Your task to perform on an android device: toggle location history Image 0: 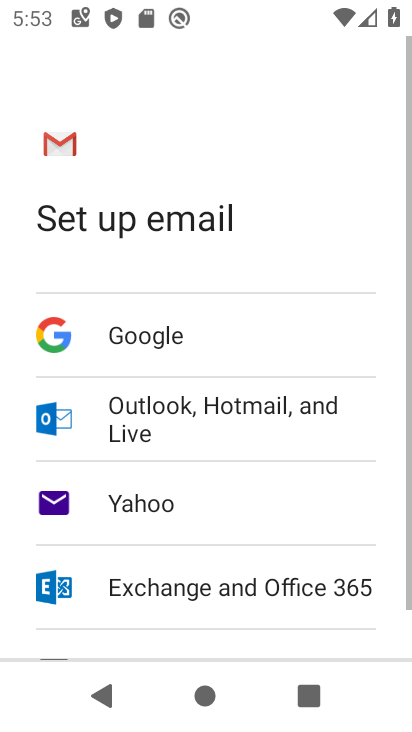
Step 0: press home button
Your task to perform on an android device: toggle location history Image 1: 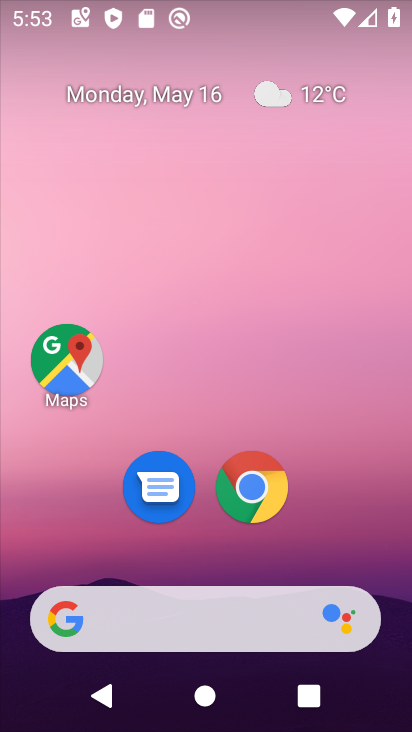
Step 1: drag from (409, 435) to (368, 22)
Your task to perform on an android device: toggle location history Image 2: 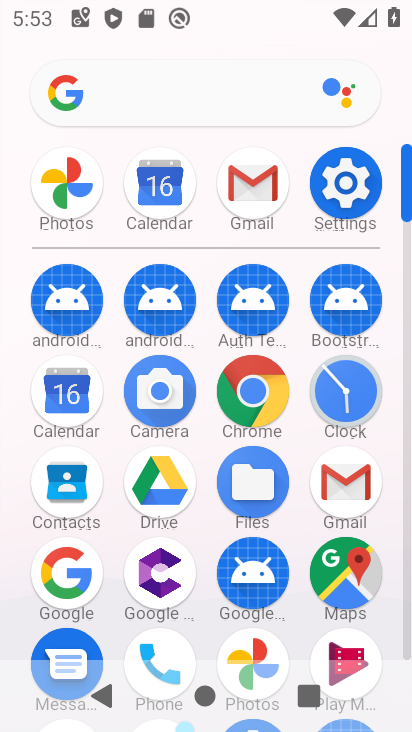
Step 2: click (331, 177)
Your task to perform on an android device: toggle location history Image 3: 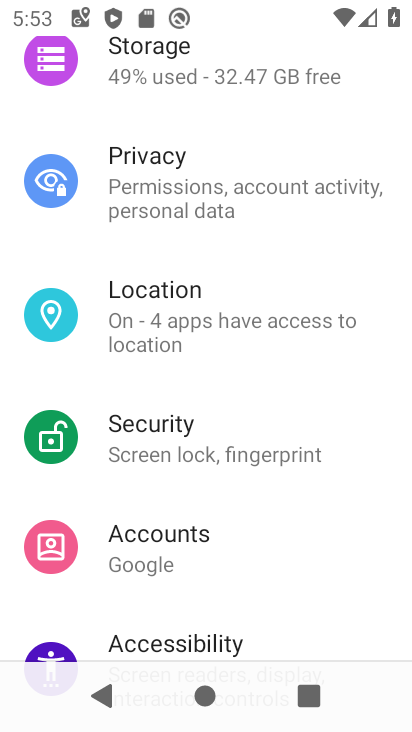
Step 3: click (154, 318)
Your task to perform on an android device: toggle location history Image 4: 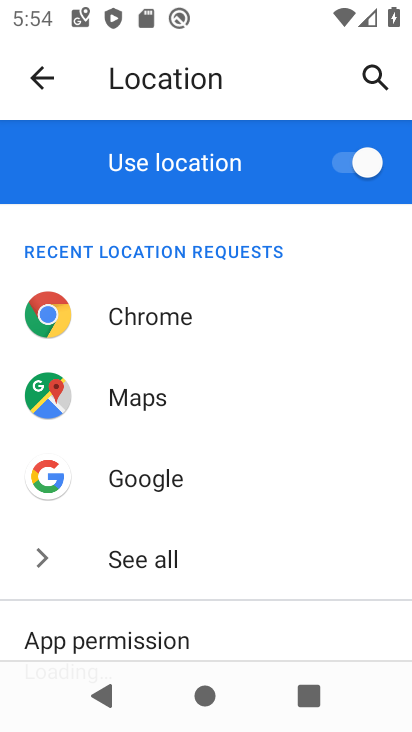
Step 4: drag from (301, 513) to (268, 90)
Your task to perform on an android device: toggle location history Image 5: 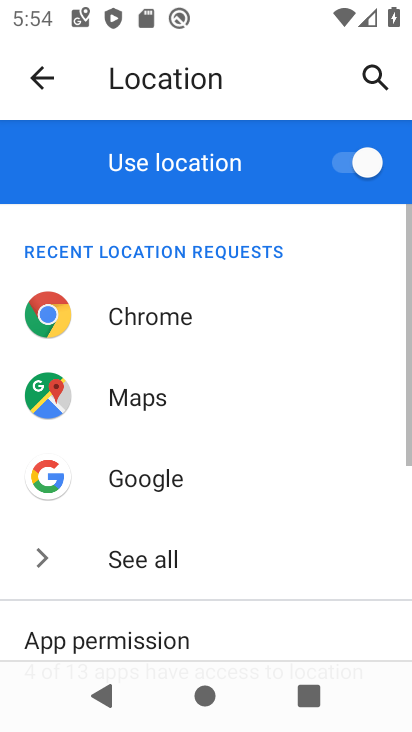
Step 5: drag from (188, 603) to (239, 151)
Your task to perform on an android device: toggle location history Image 6: 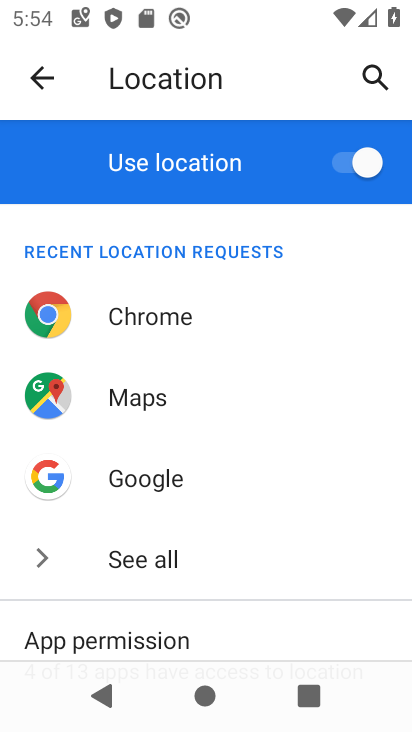
Step 6: drag from (250, 638) to (286, 205)
Your task to perform on an android device: toggle location history Image 7: 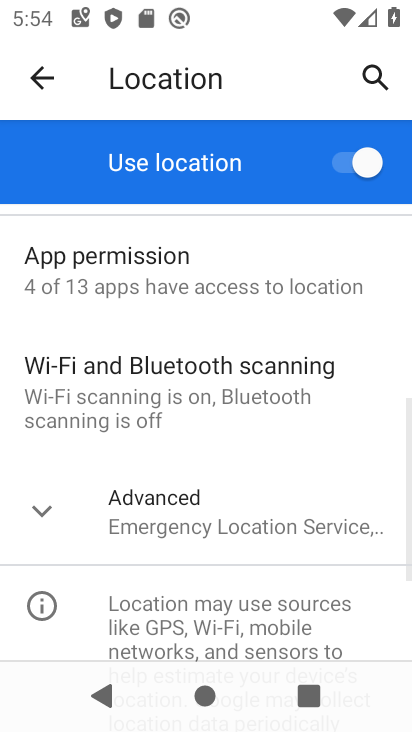
Step 7: click (185, 519)
Your task to perform on an android device: toggle location history Image 8: 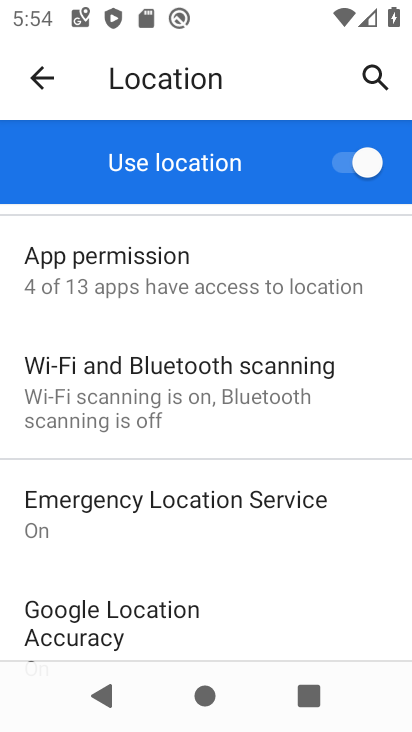
Step 8: drag from (190, 641) to (294, 342)
Your task to perform on an android device: toggle location history Image 9: 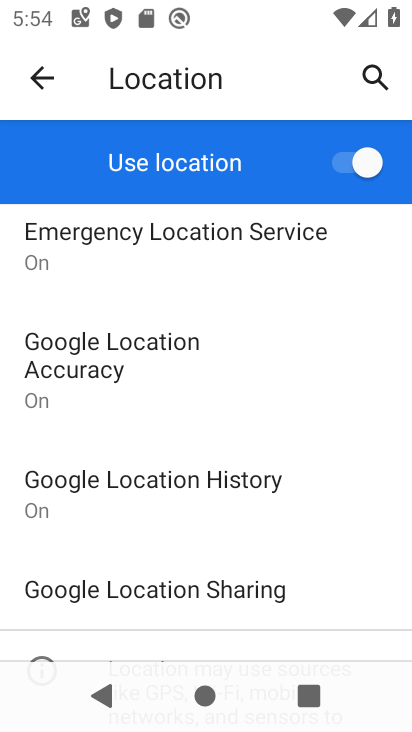
Step 9: click (214, 491)
Your task to perform on an android device: toggle location history Image 10: 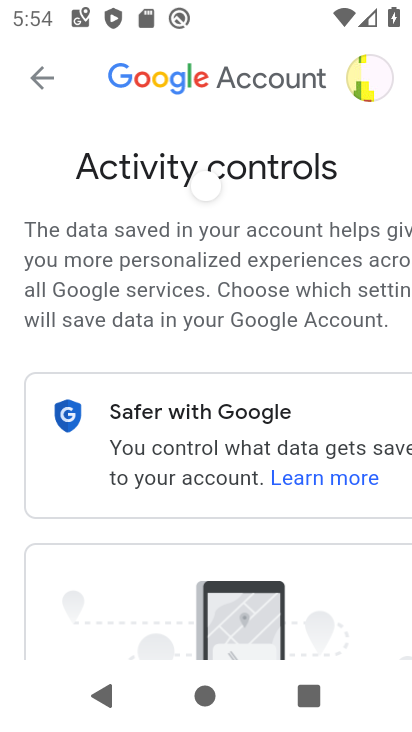
Step 10: drag from (260, 589) to (296, 146)
Your task to perform on an android device: toggle location history Image 11: 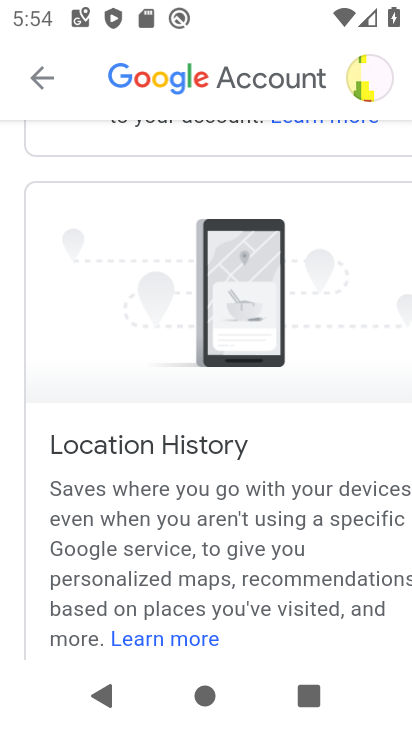
Step 11: drag from (238, 529) to (277, 147)
Your task to perform on an android device: toggle location history Image 12: 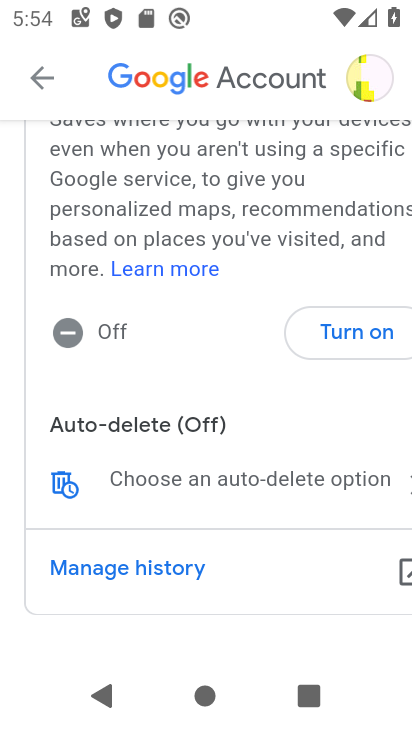
Step 12: click (348, 320)
Your task to perform on an android device: toggle location history Image 13: 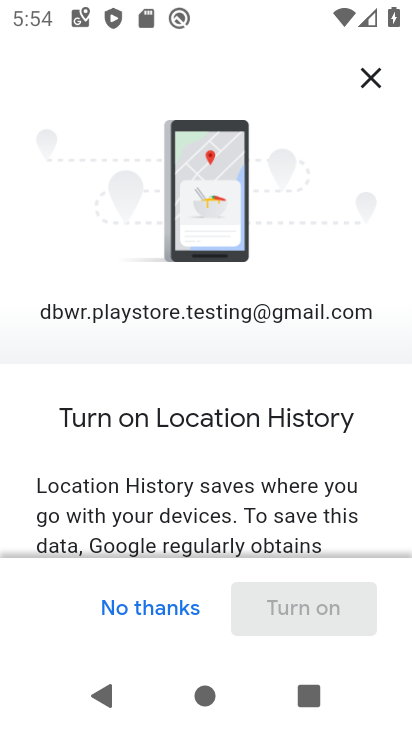
Step 13: drag from (210, 526) to (258, 171)
Your task to perform on an android device: toggle location history Image 14: 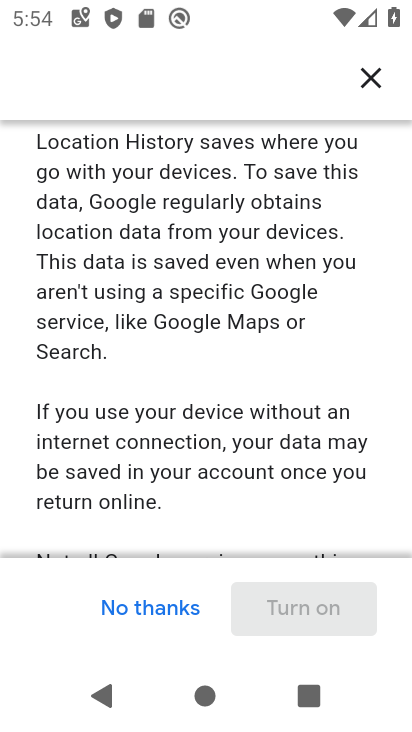
Step 14: drag from (252, 530) to (276, 224)
Your task to perform on an android device: toggle location history Image 15: 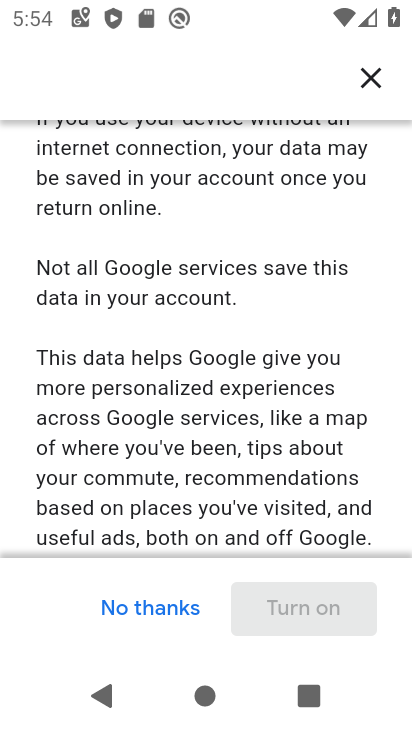
Step 15: drag from (298, 462) to (284, 229)
Your task to perform on an android device: toggle location history Image 16: 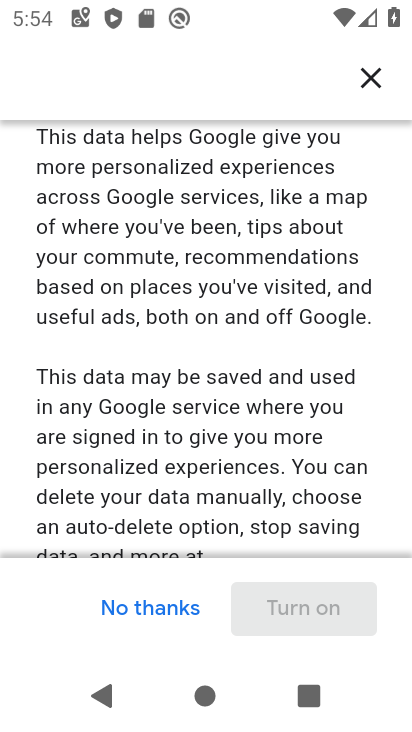
Step 16: drag from (319, 536) to (290, 258)
Your task to perform on an android device: toggle location history Image 17: 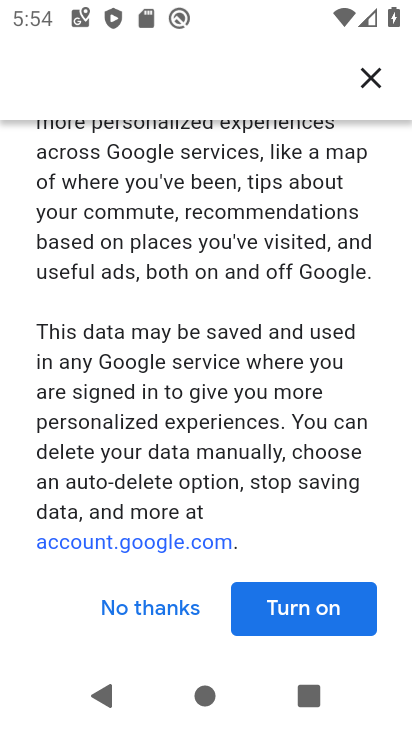
Step 17: click (275, 610)
Your task to perform on an android device: toggle location history Image 18: 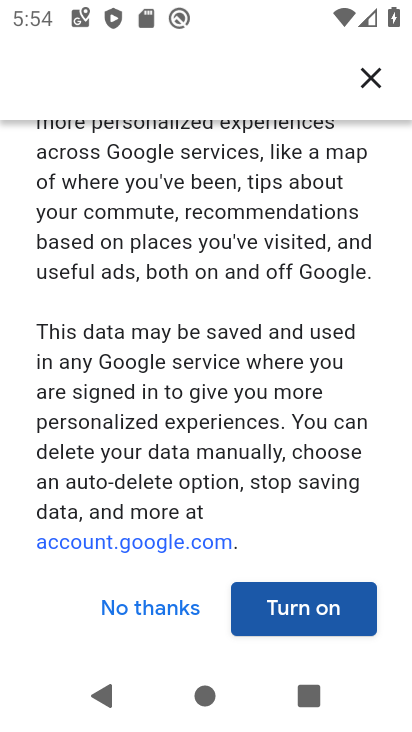
Step 18: click (289, 594)
Your task to perform on an android device: toggle location history Image 19: 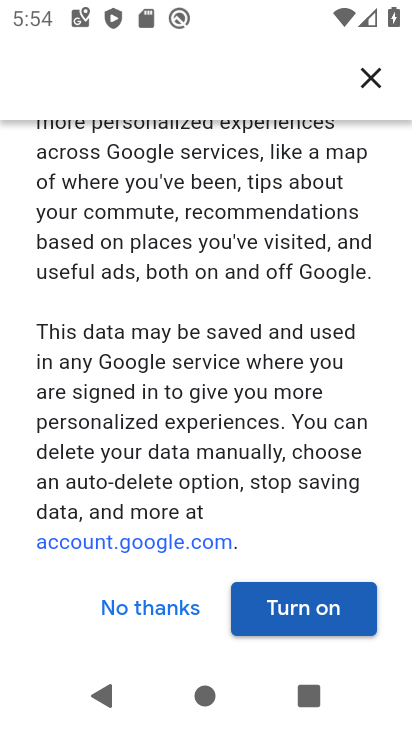
Step 19: click (292, 605)
Your task to perform on an android device: toggle location history Image 20: 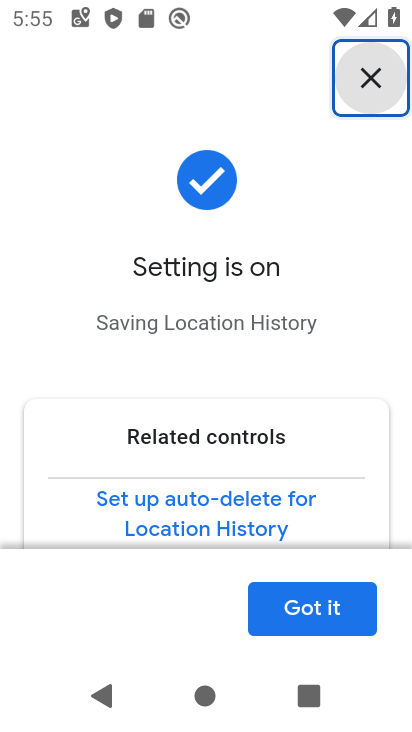
Step 20: task complete